Your task to perform on an android device: find which apps use the phone's location Image 0: 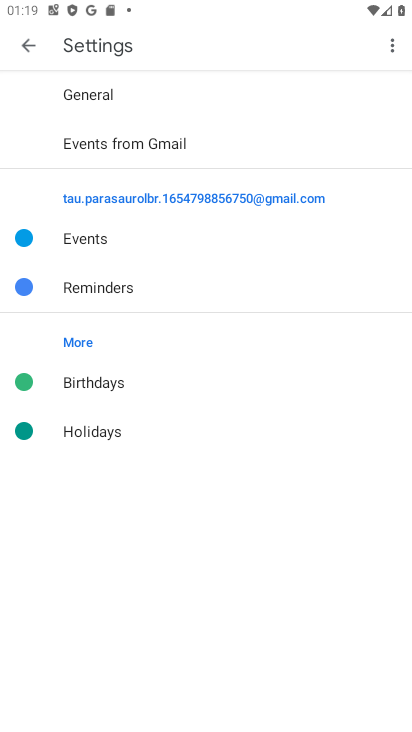
Step 0: press home button
Your task to perform on an android device: find which apps use the phone's location Image 1: 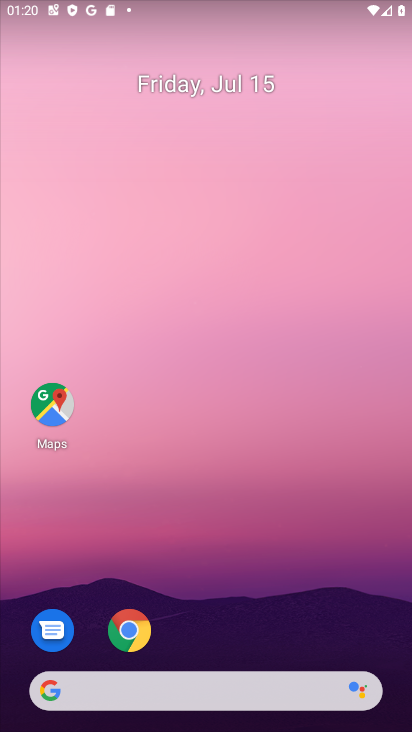
Step 1: drag from (269, 630) to (255, 135)
Your task to perform on an android device: find which apps use the phone's location Image 2: 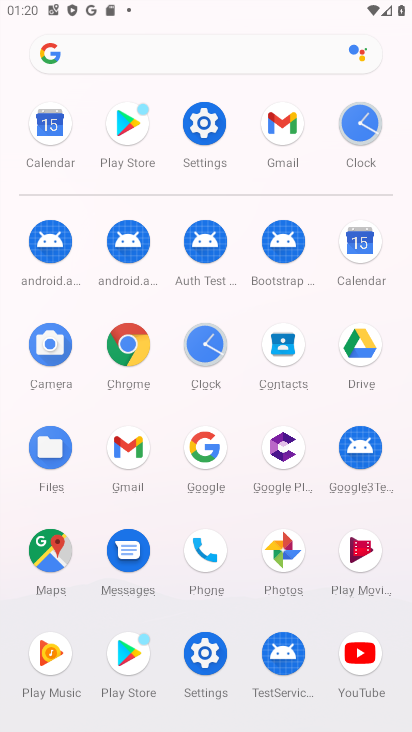
Step 2: click (201, 150)
Your task to perform on an android device: find which apps use the phone's location Image 3: 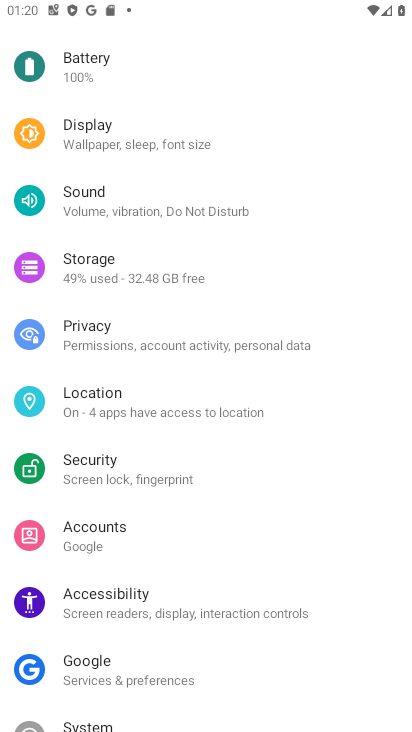
Step 3: drag from (115, 640) to (161, 182)
Your task to perform on an android device: find which apps use the phone's location Image 4: 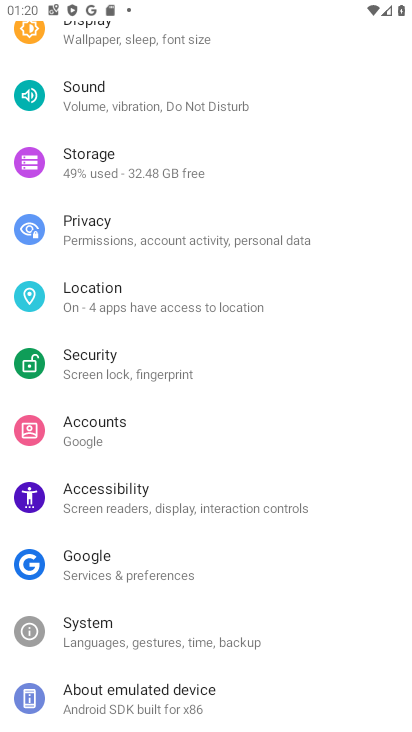
Step 4: drag from (162, 266) to (149, 322)
Your task to perform on an android device: find which apps use the phone's location Image 5: 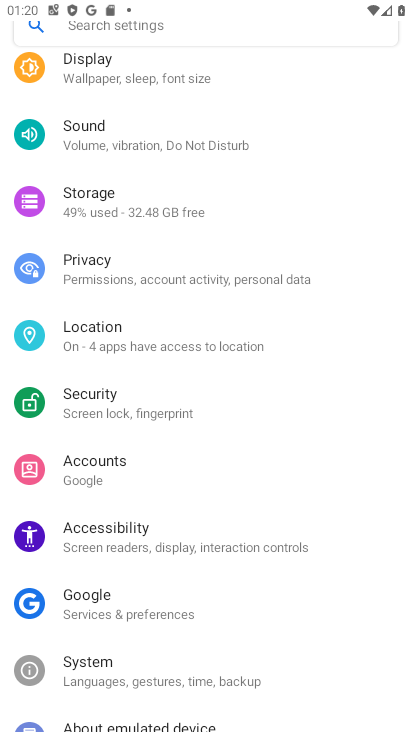
Step 5: click (149, 322)
Your task to perform on an android device: find which apps use the phone's location Image 6: 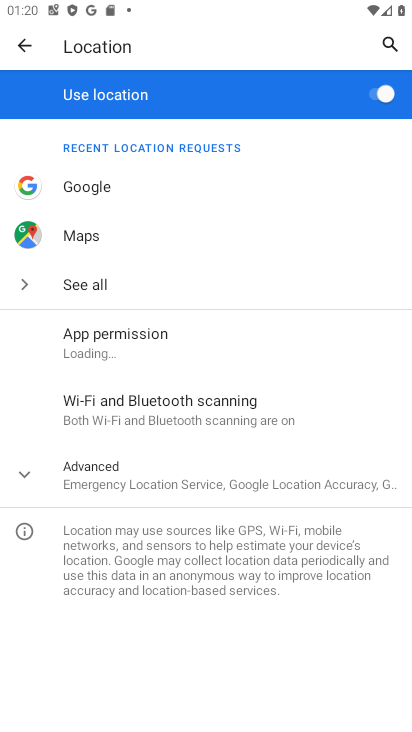
Step 6: click (146, 279)
Your task to perform on an android device: find which apps use the phone's location Image 7: 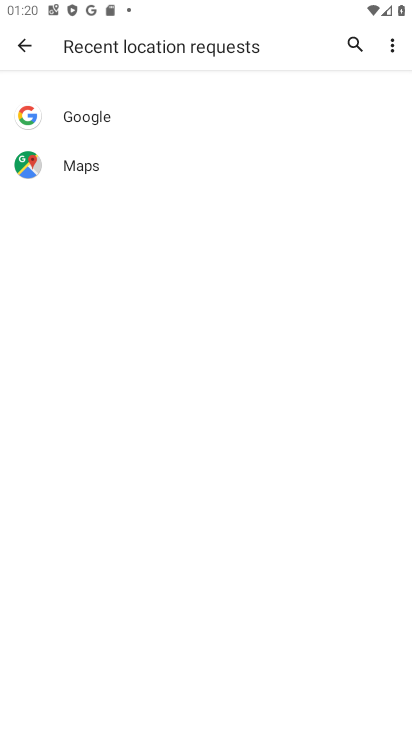
Step 7: task complete